Your task to perform on an android device: Go to Google maps Image 0: 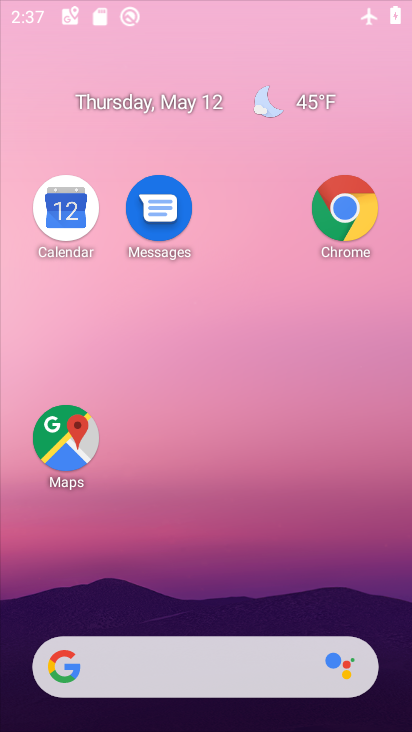
Step 0: click (282, 235)
Your task to perform on an android device: Go to Google maps Image 1: 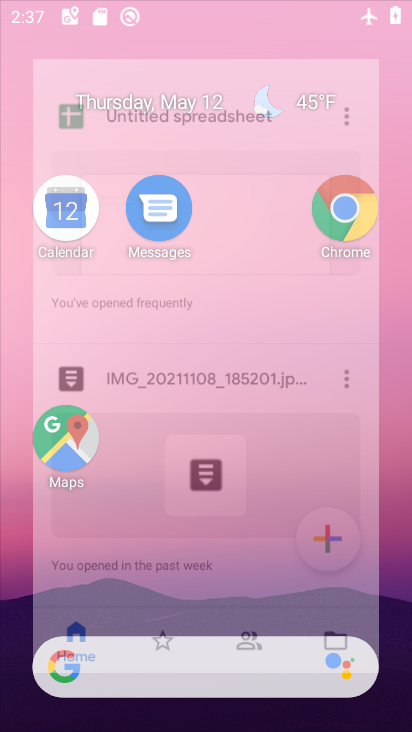
Step 1: drag from (208, 612) to (252, 223)
Your task to perform on an android device: Go to Google maps Image 2: 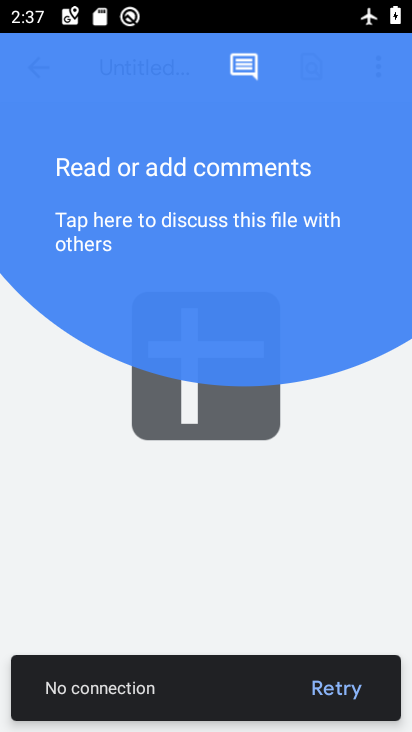
Step 2: press home button
Your task to perform on an android device: Go to Google maps Image 3: 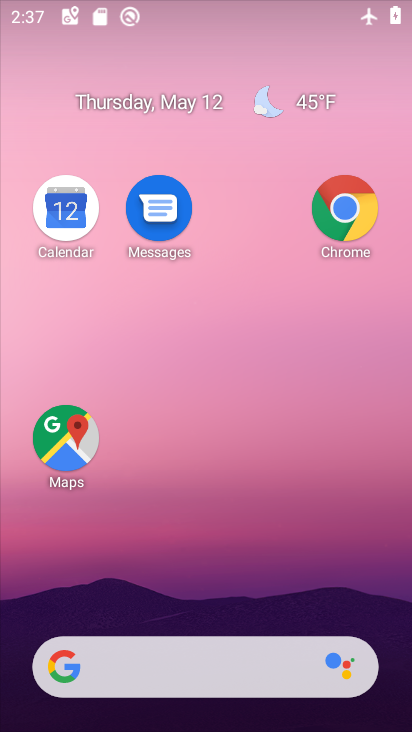
Step 3: drag from (221, 562) to (221, 293)
Your task to perform on an android device: Go to Google maps Image 4: 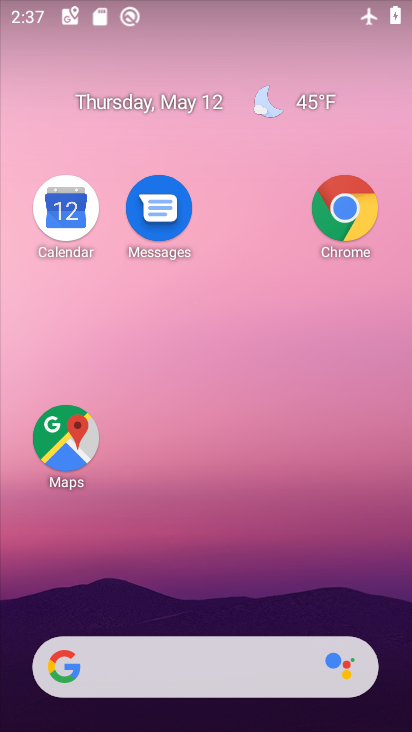
Step 4: click (72, 449)
Your task to perform on an android device: Go to Google maps Image 5: 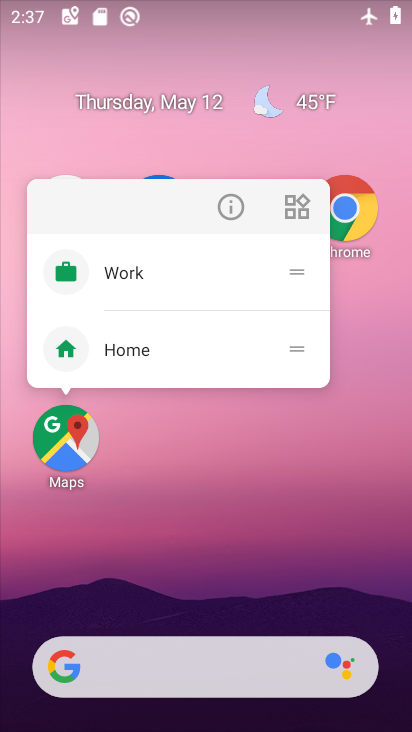
Step 5: click (239, 214)
Your task to perform on an android device: Go to Google maps Image 6: 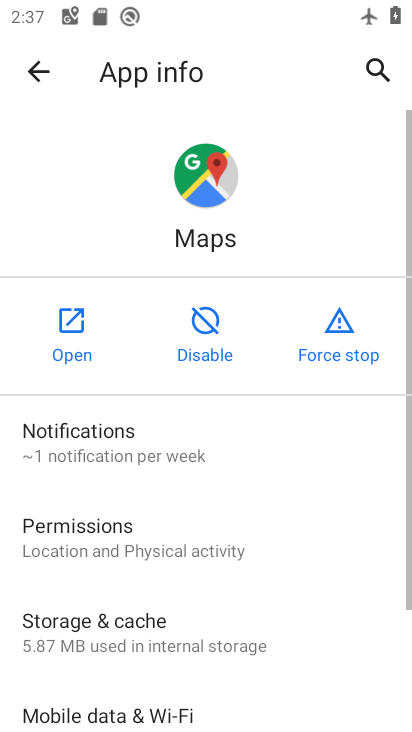
Step 6: click (81, 365)
Your task to perform on an android device: Go to Google maps Image 7: 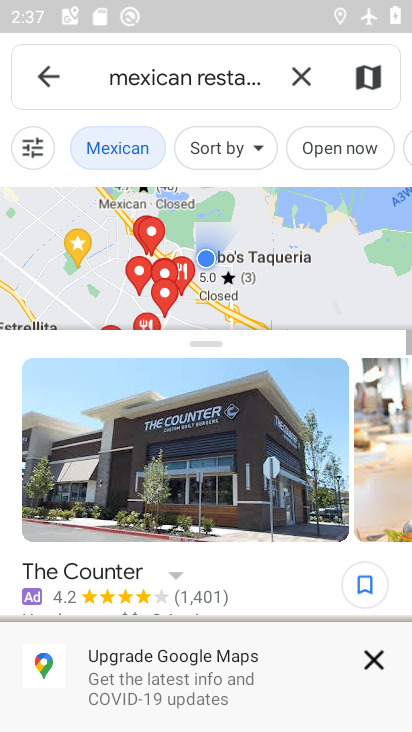
Step 7: task complete